Your task to perform on an android device: open sync settings in chrome Image 0: 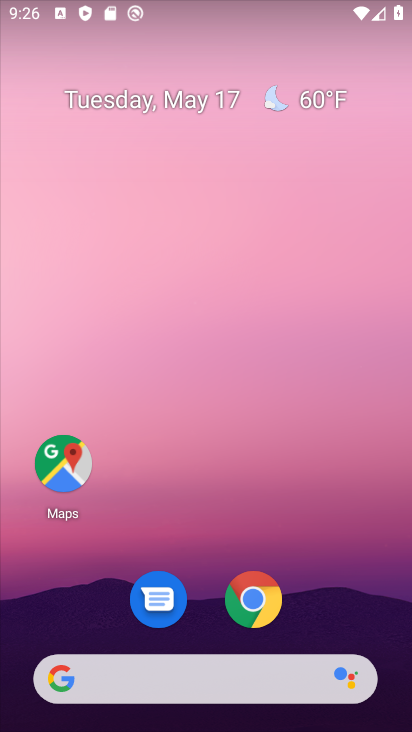
Step 0: click (258, 596)
Your task to perform on an android device: open sync settings in chrome Image 1: 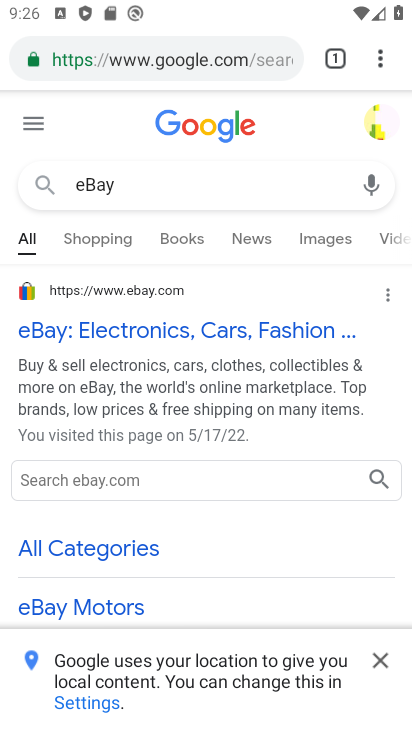
Step 1: click (376, 53)
Your task to perform on an android device: open sync settings in chrome Image 2: 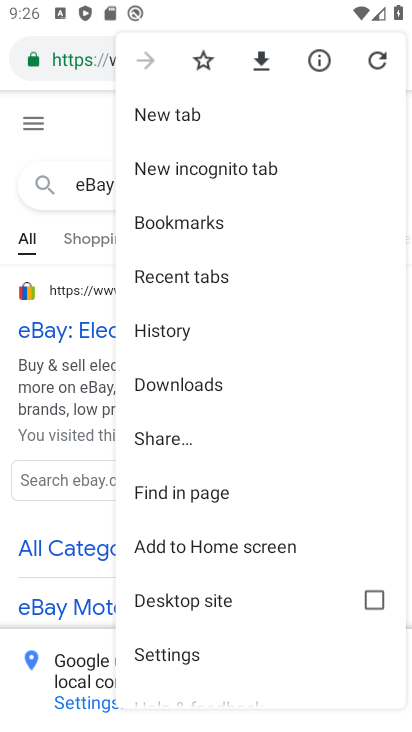
Step 2: drag from (261, 654) to (277, 267)
Your task to perform on an android device: open sync settings in chrome Image 3: 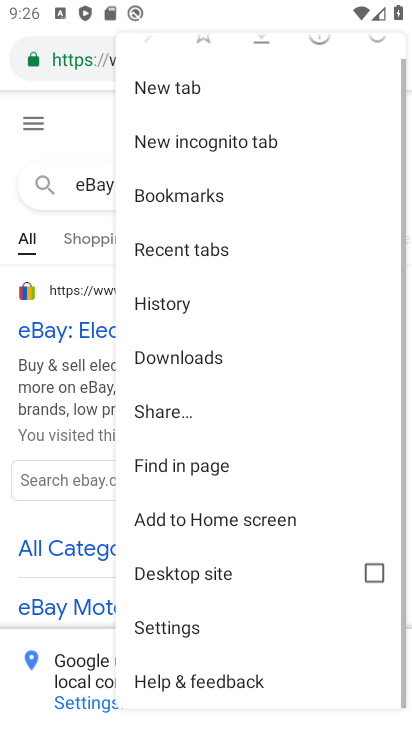
Step 3: click (170, 620)
Your task to perform on an android device: open sync settings in chrome Image 4: 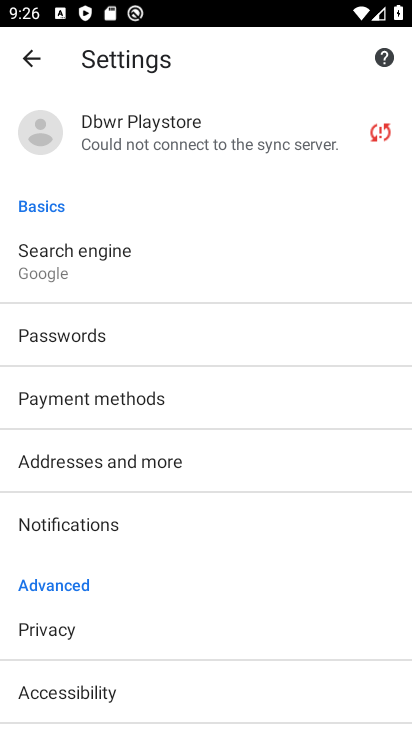
Step 4: drag from (268, 690) to (271, 398)
Your task to perform on an android device: open sync settings in chrome Image 5: 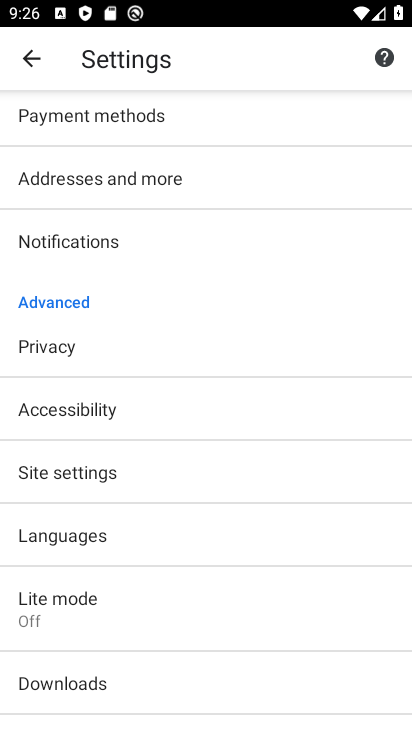
Step 5: click (56, 471)
Your task to perform on an android device: open sync settings in chrome Image 6: 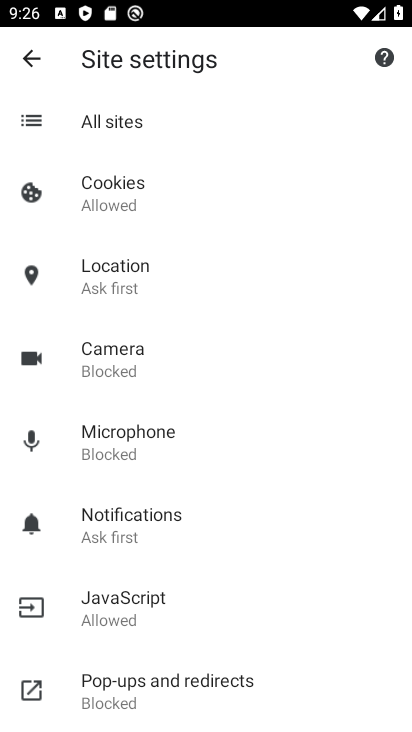
Step 6: drag from (320, 549) to (305, 431)
Your task to perform on an android device: open sync settings in chrome Image 7: 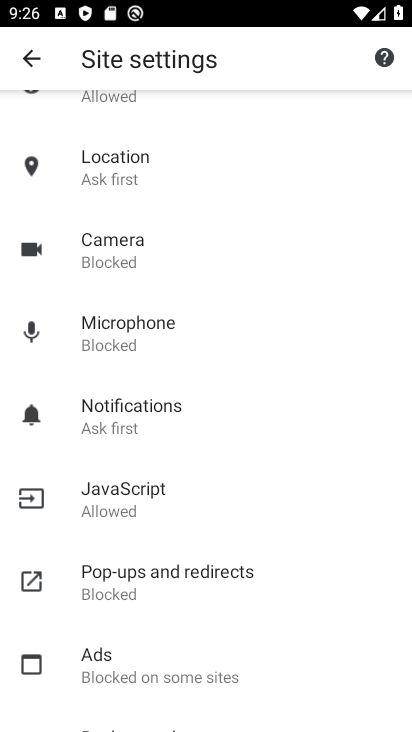
Step 7: drag from (308, 668) to (301, 396)
Your task to perform on an android device: open sync settings in chrome Image 8: 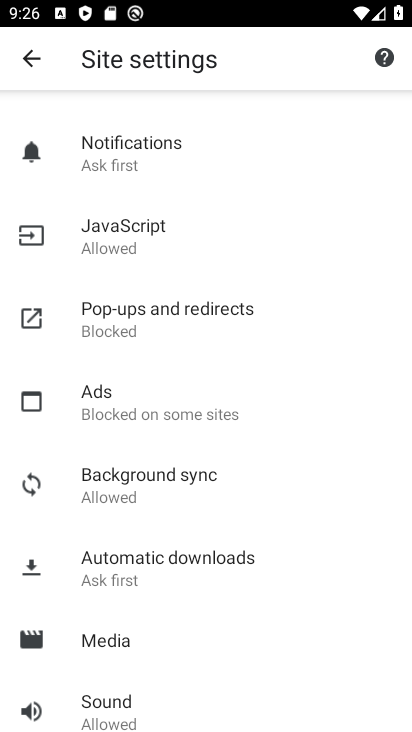
Step 8: click (124, 474)
Your task to perform on an android device: open sync settings in chrome Image 9: 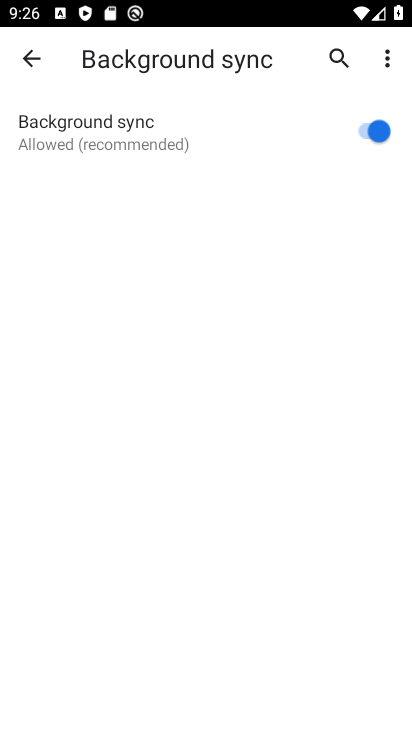
Step 9: task complete